Your task to perform on an android device: Open the stopwatch Image 0: 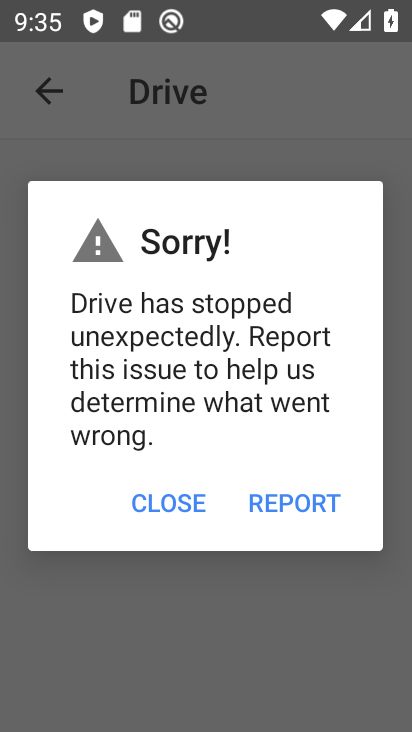
Step 0: press home button
Your task to perform on an android device: Open the stopwatch Image 1: 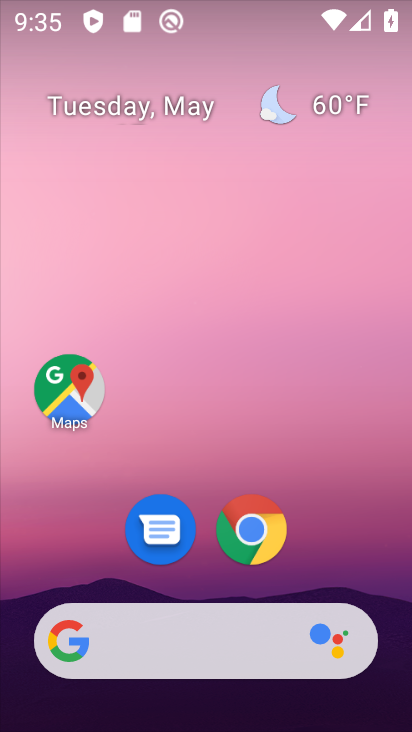
Step 1: drag from (180, 565) to (180, 247)
Your task to perform on an android device: Open the stopwatch Image 2: 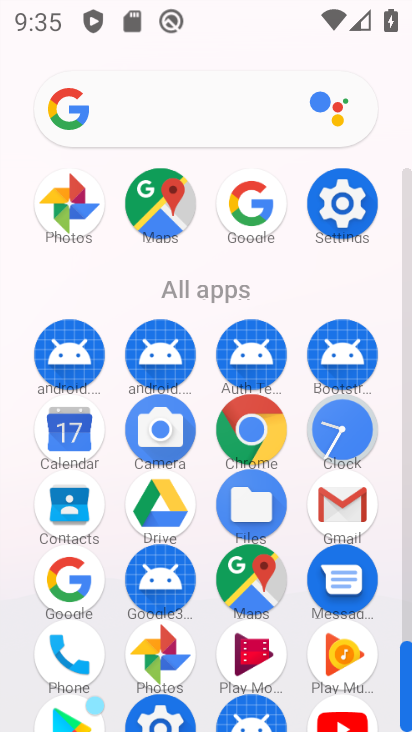
Step 2: click (332, 443)
Your task to perform on an android device: Open the stopwatch Image 3: 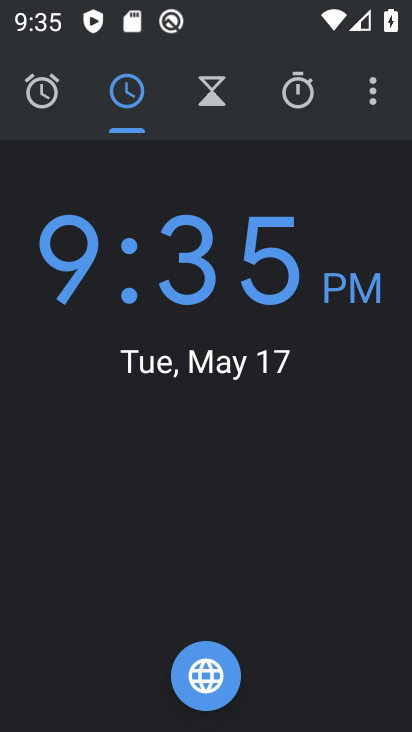
Step 3: click (294, 97)
Your task to perform on an android device: Open the stopwatch Image 4: 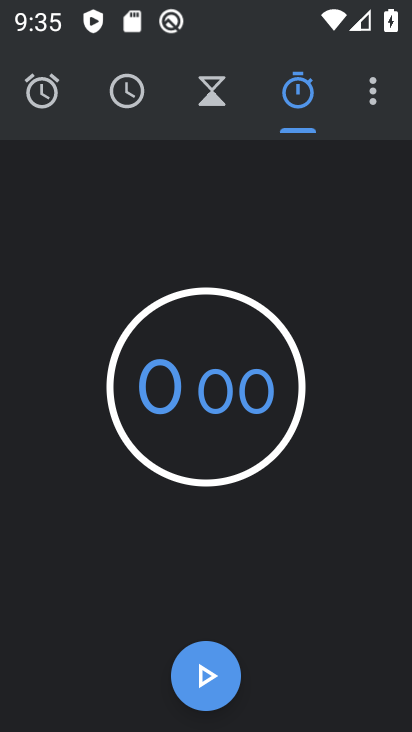
Step 4: task complete